Your task to perform on an android device: Show me popular games on the Play Store Image 0: 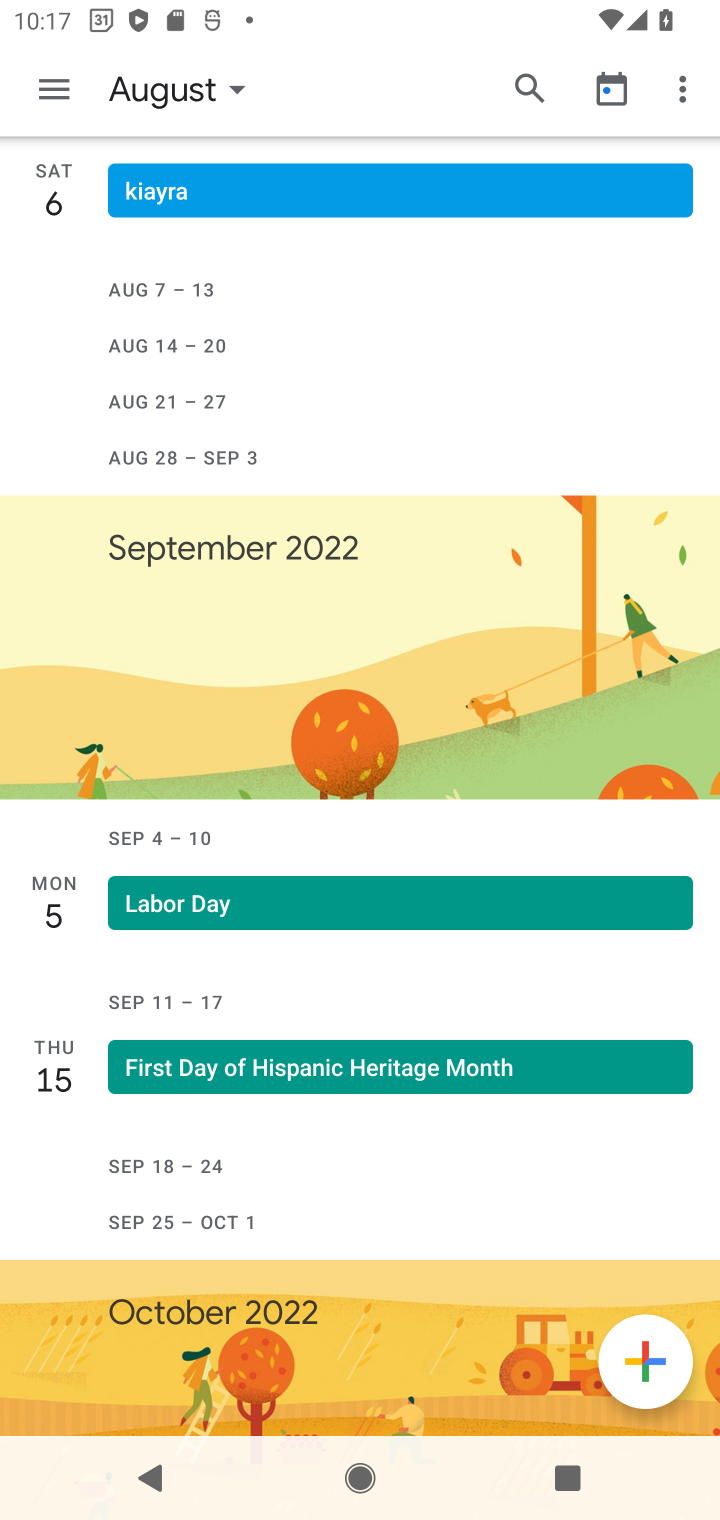
Step 0: press home button
Your task to perform on an android device: Show me popular games on the Play Store Image 1: 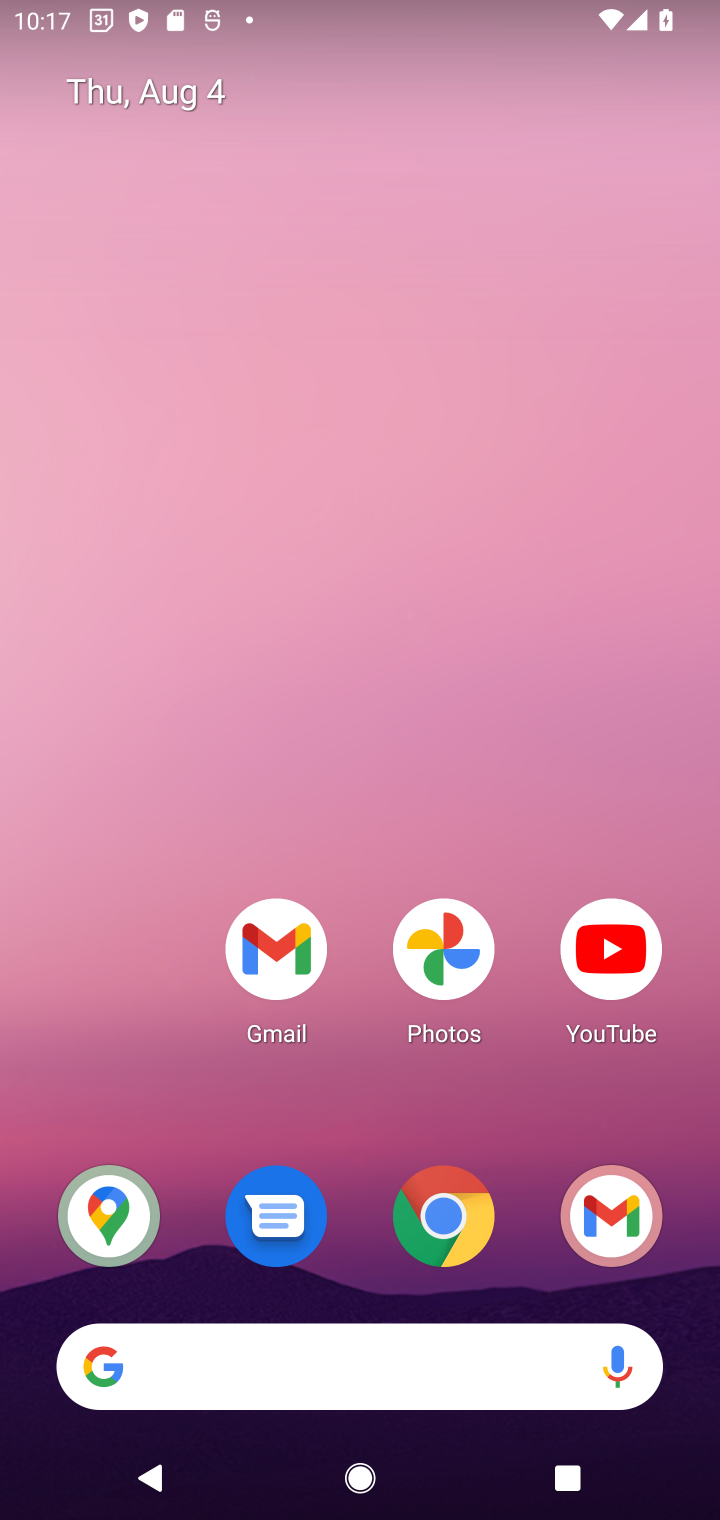
Step 1: drag from (329, 1341) to (316, 315)
Your task to perform on an android device: Show me popular games on the Play Store Image 2: 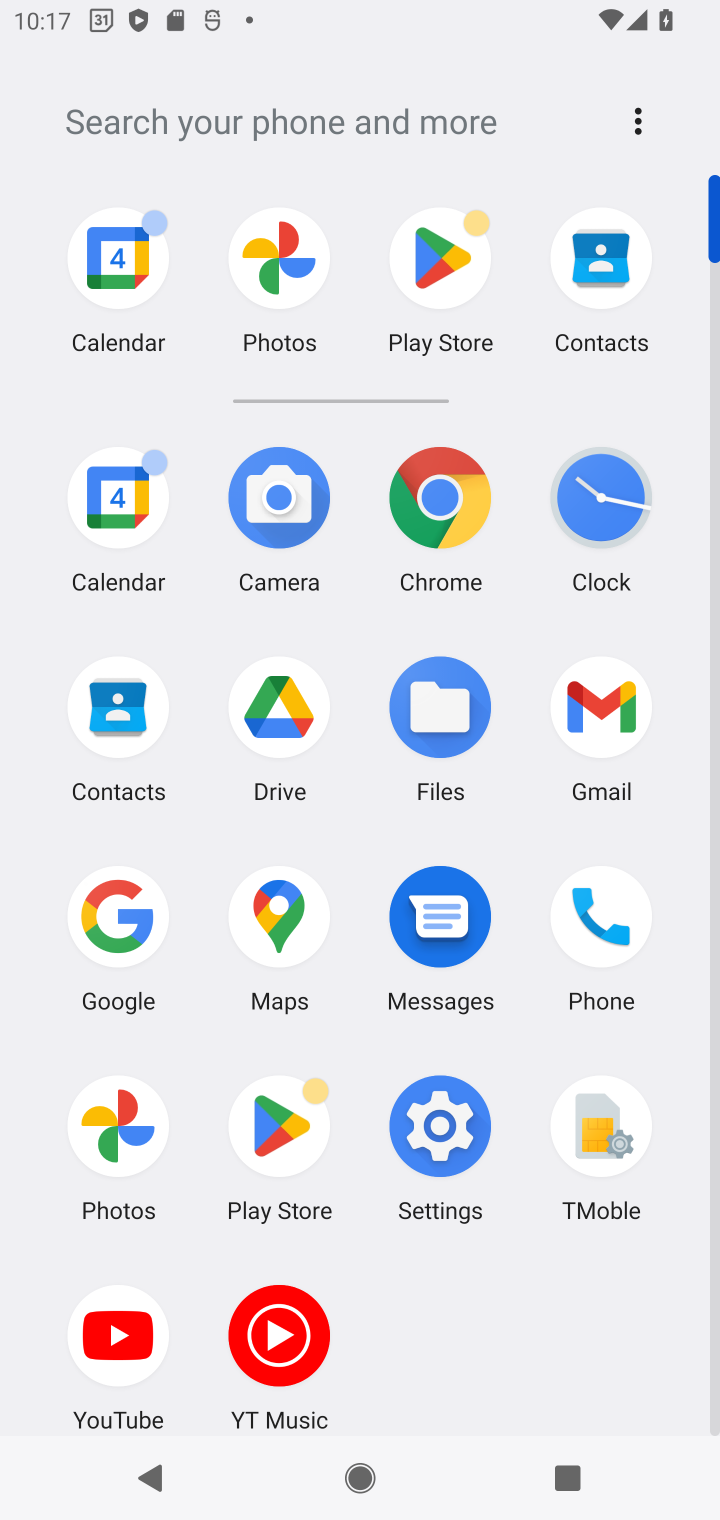
Step 2: click (453, 268)
Your task to perform on an android device: Show me popular games on the Play Store Image 3: 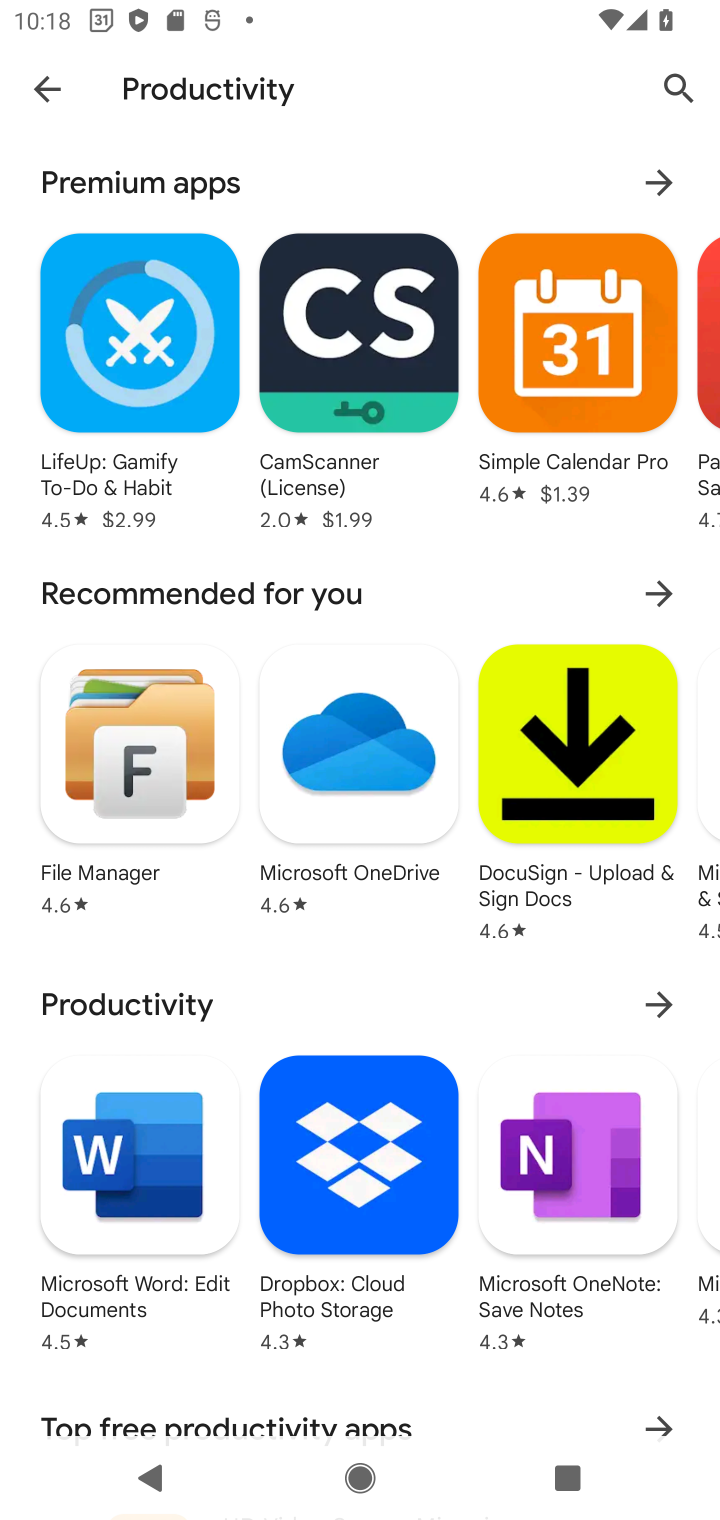
Step 3: click (674, 83)
Your task to perform on an android device: Show me popular games on the Play Store Image 4: 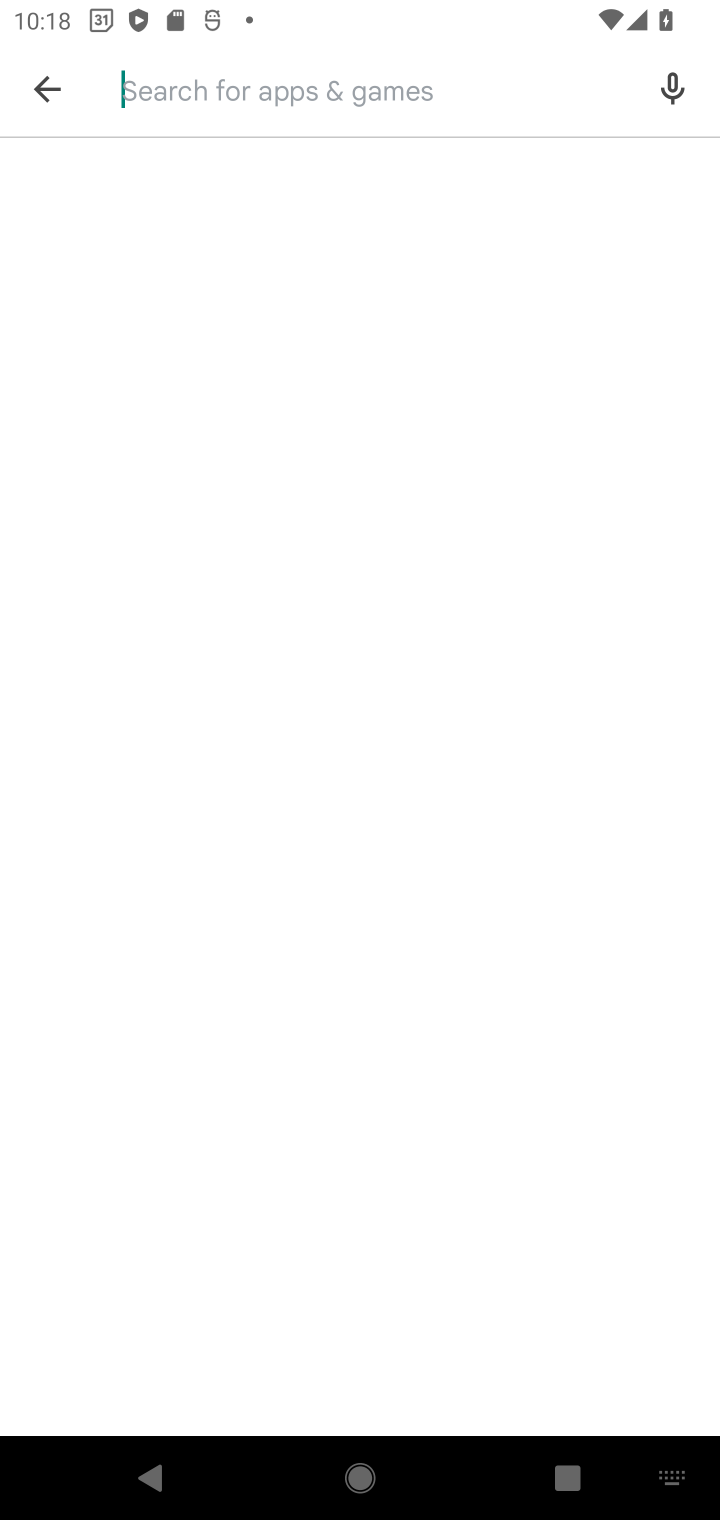
Step 4: press back button
Your task to perform on an android device: Show me popular games on the Play Store Image 5: 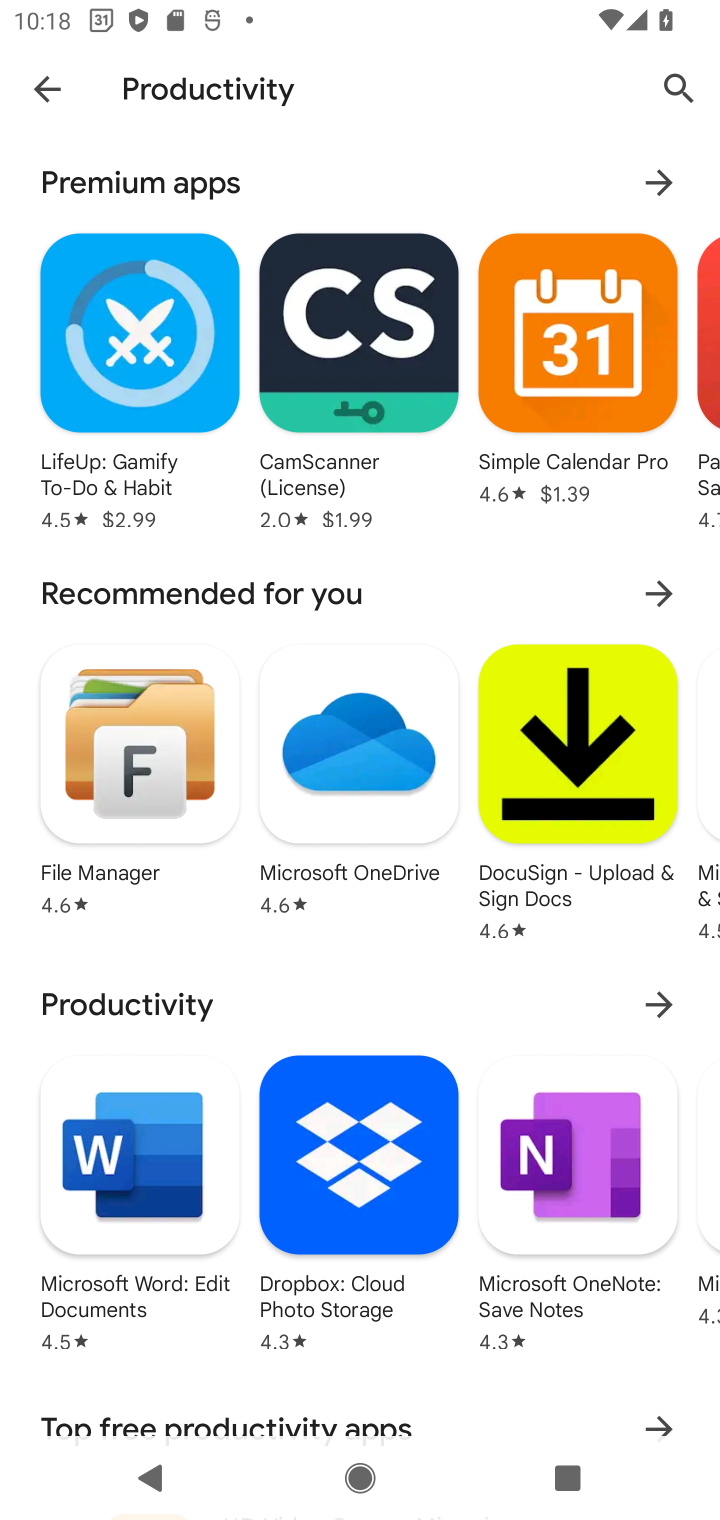
Step 5: click (677, 98)
Your task to perform on an android device: Show me popular games on the Play Store Image 6: 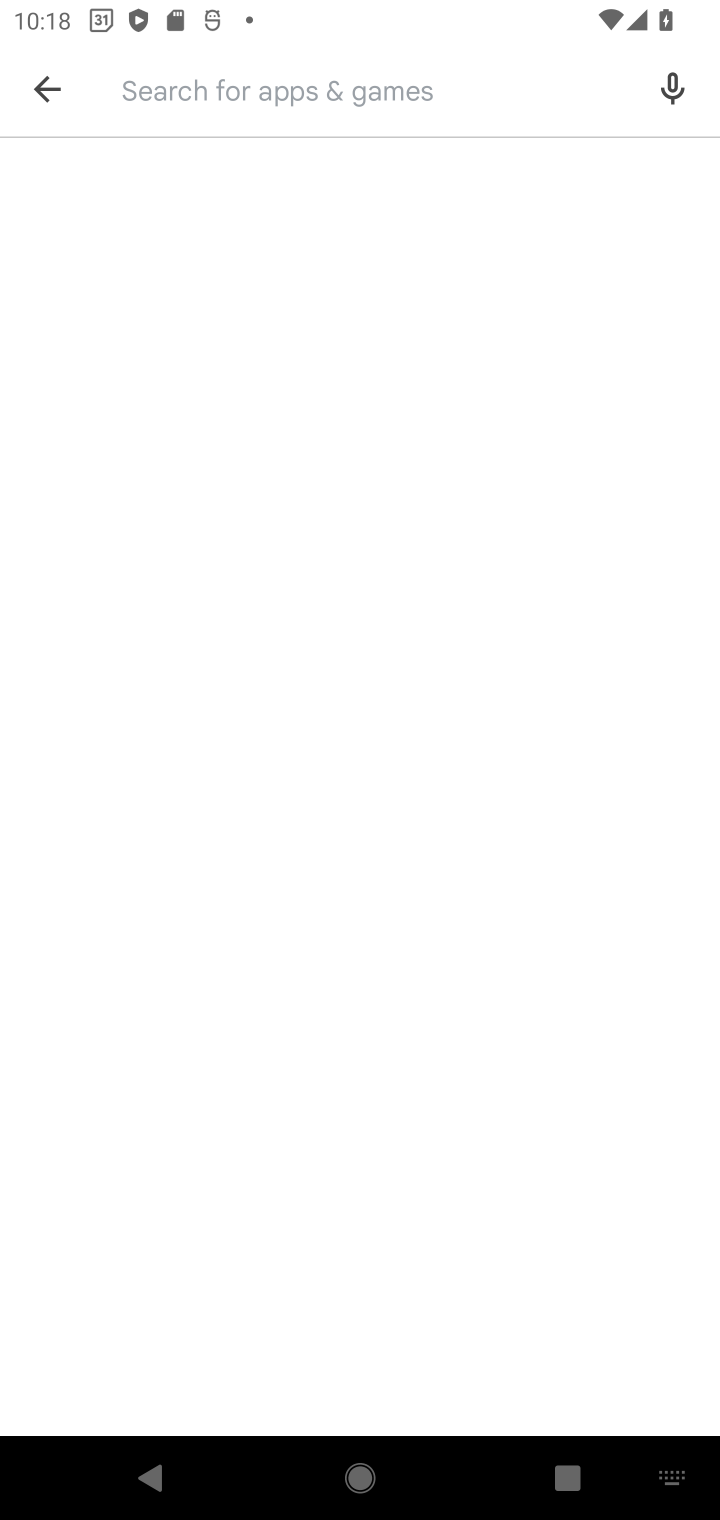
Step 6: type "popular games"
Your task to perform on an android device: Show me popular games on the Play Store Image 7: 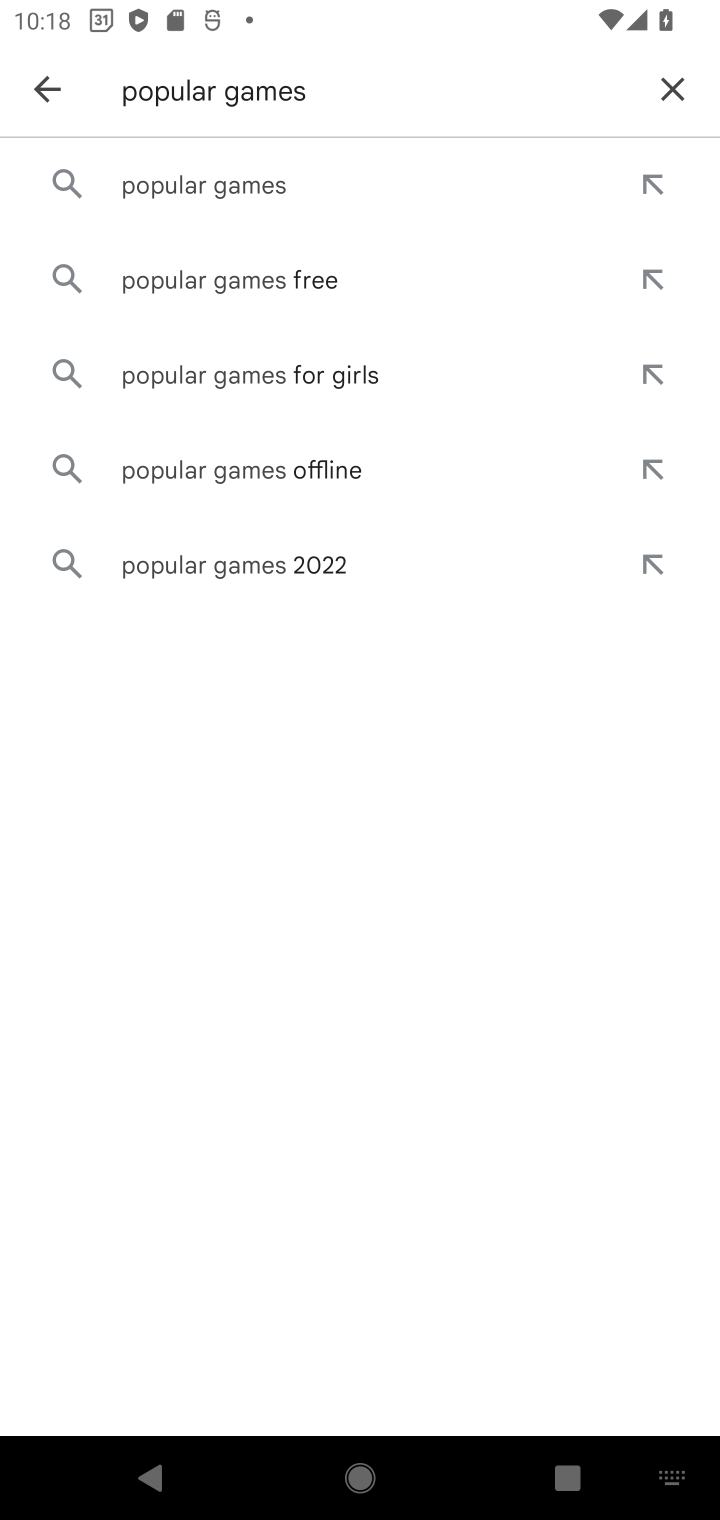
Step 7: click (164, 197)
Your task to perform on an android device: Show me popular games on the Play Store Image 8: 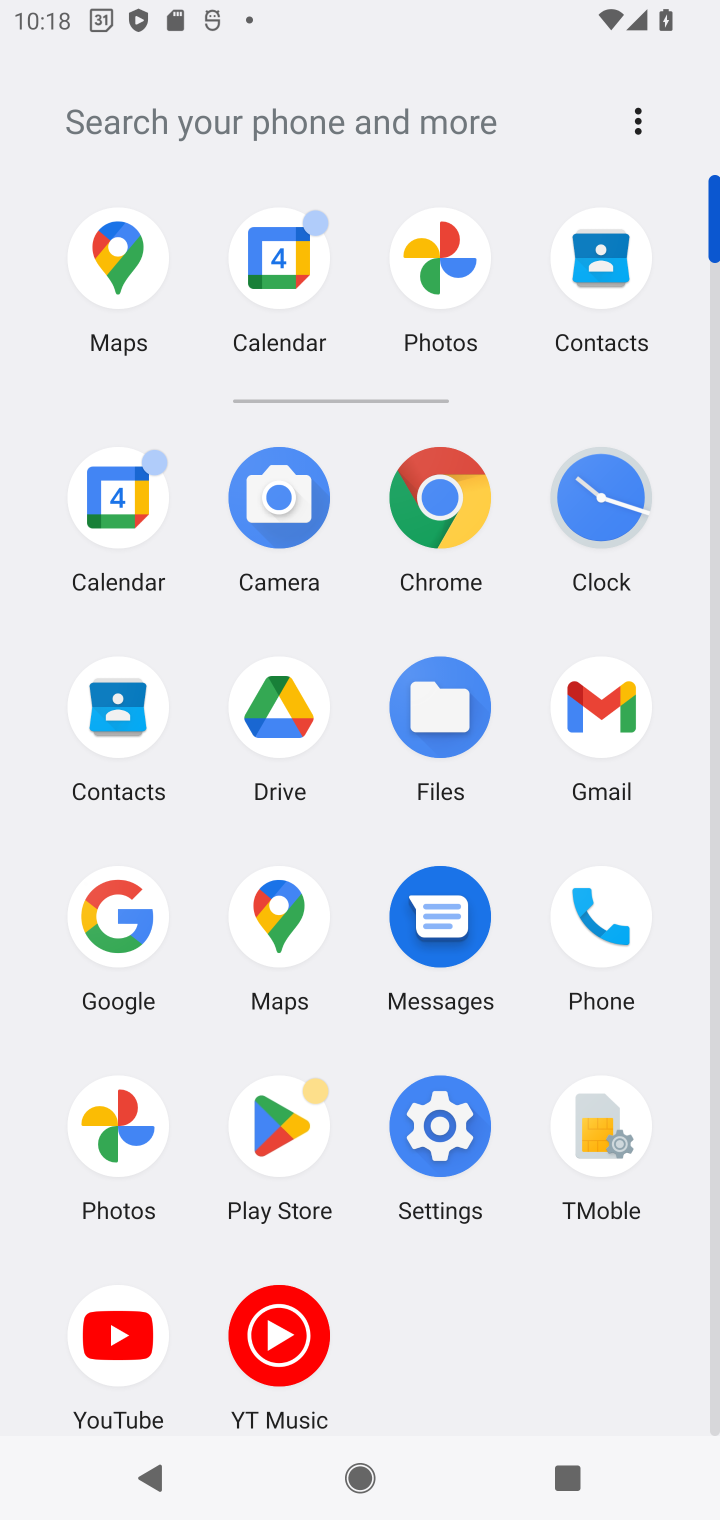
Step 8: click (285, 1146)
Your task to perform on an android device: Show me popular games on the Play Store Image 9: 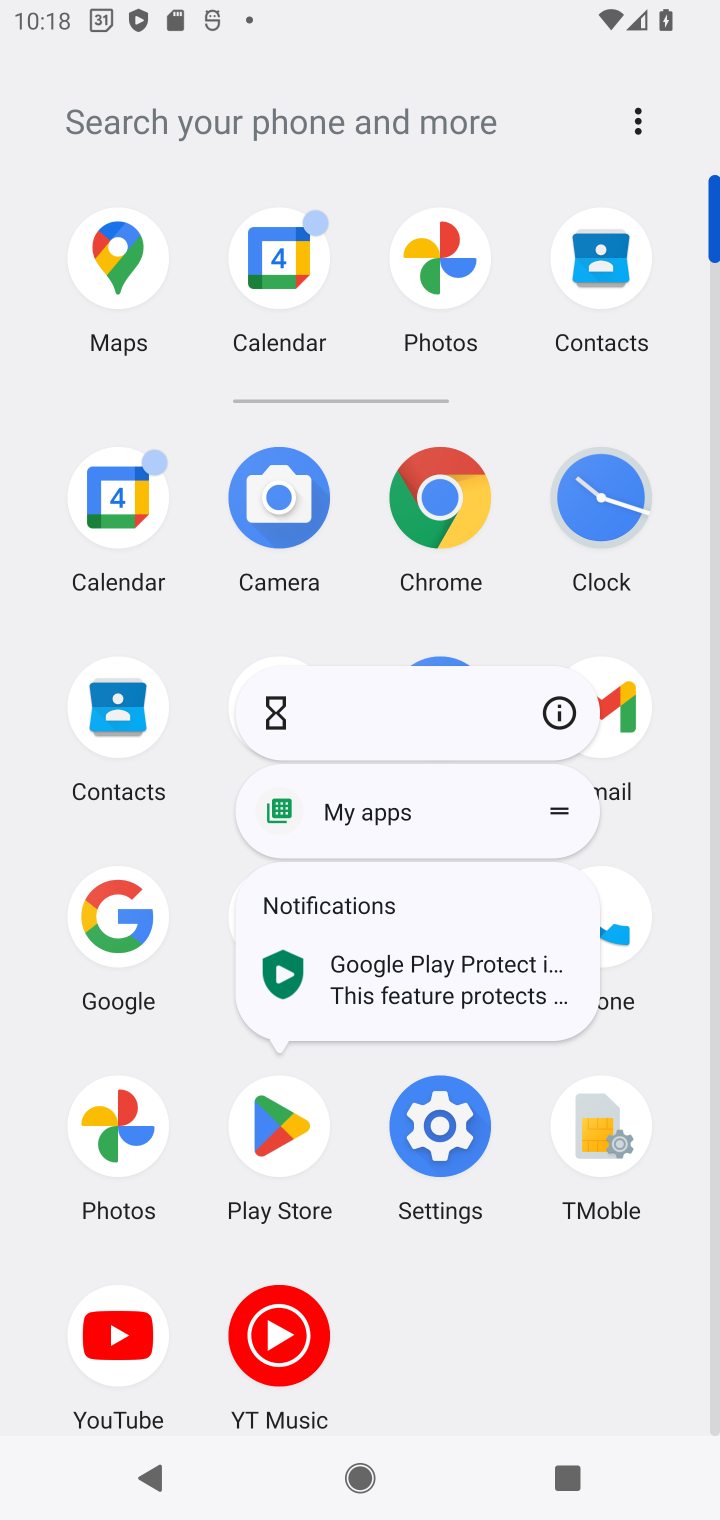
Step 9: click (285, 1146)
Your task to perform on an android device: Show me popular games on the Play Store Image 10: 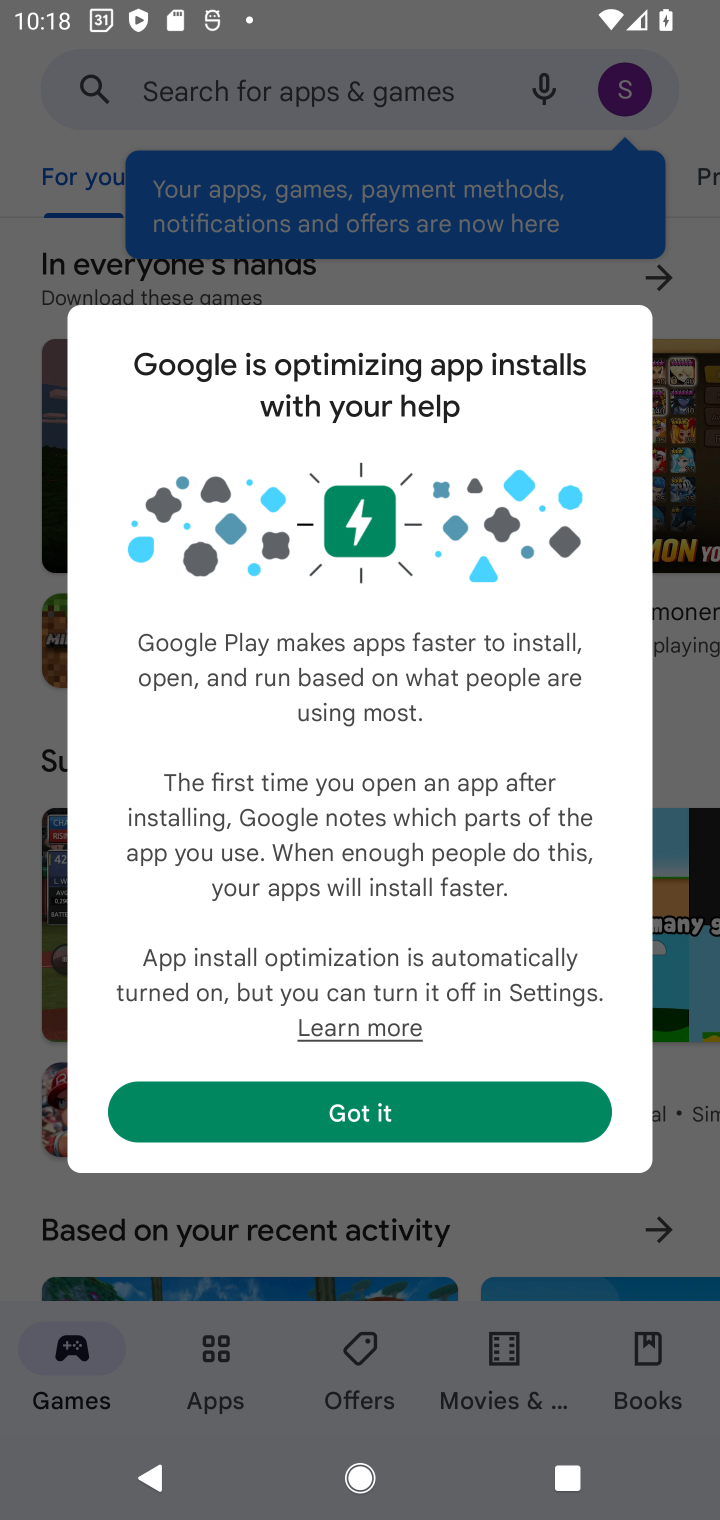
Step 10: click (351, 1130)
Your task to perform on an android device: Show me popular games on the Play Store Image 11: 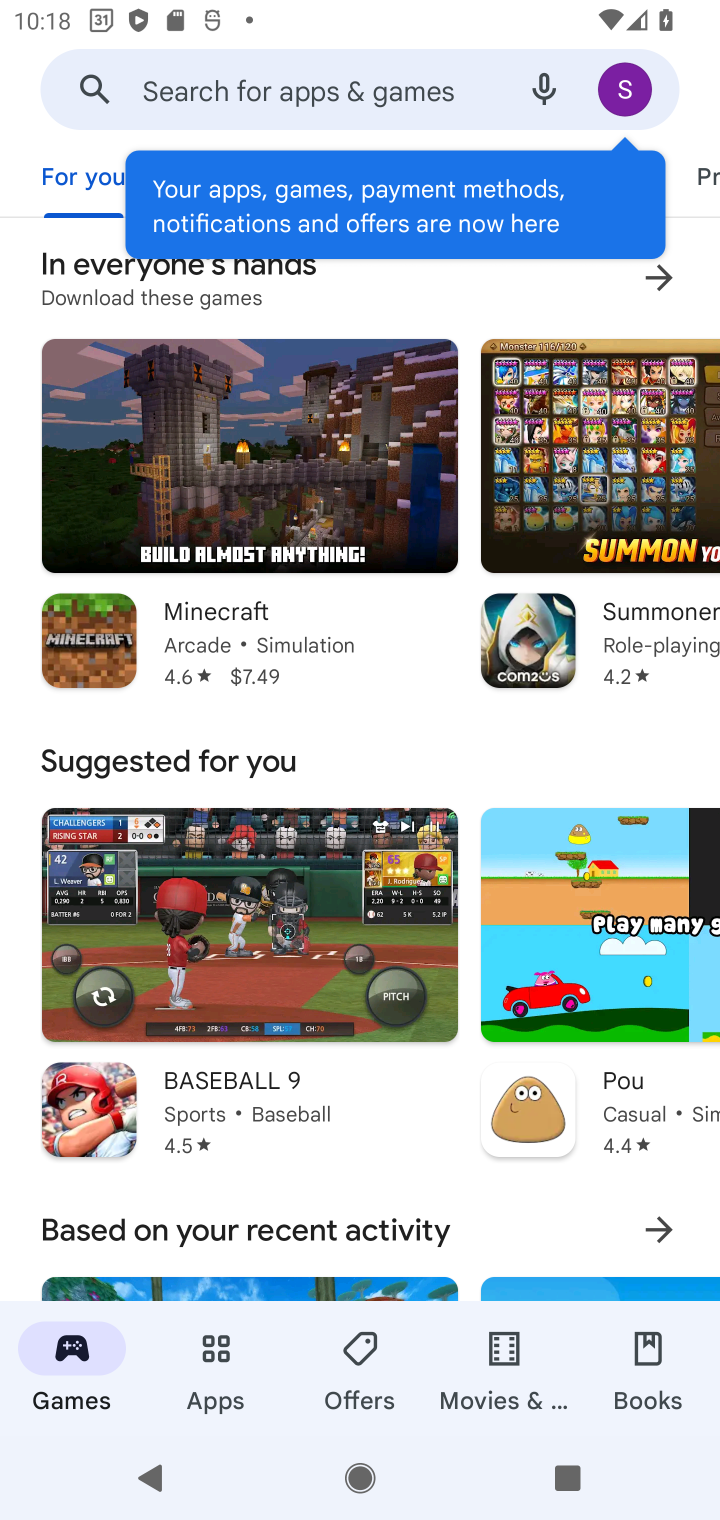
Step 11: click (398, 114)
Your task to perform on an android device: Show me popular games on the Play Store Image 12: 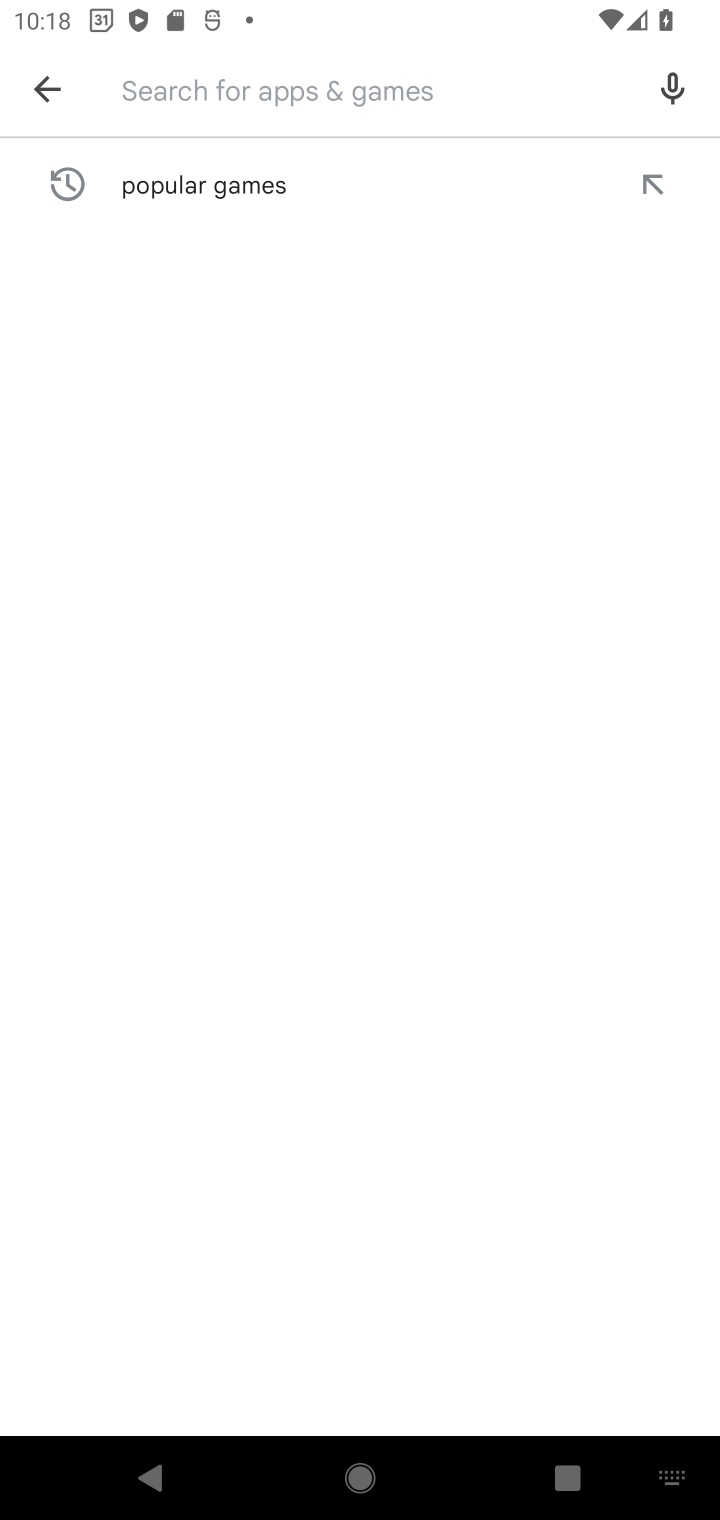
Step 12: click (237, 185)
Your task to perform on an android device: Show me popular games on the Play Store Image 13: 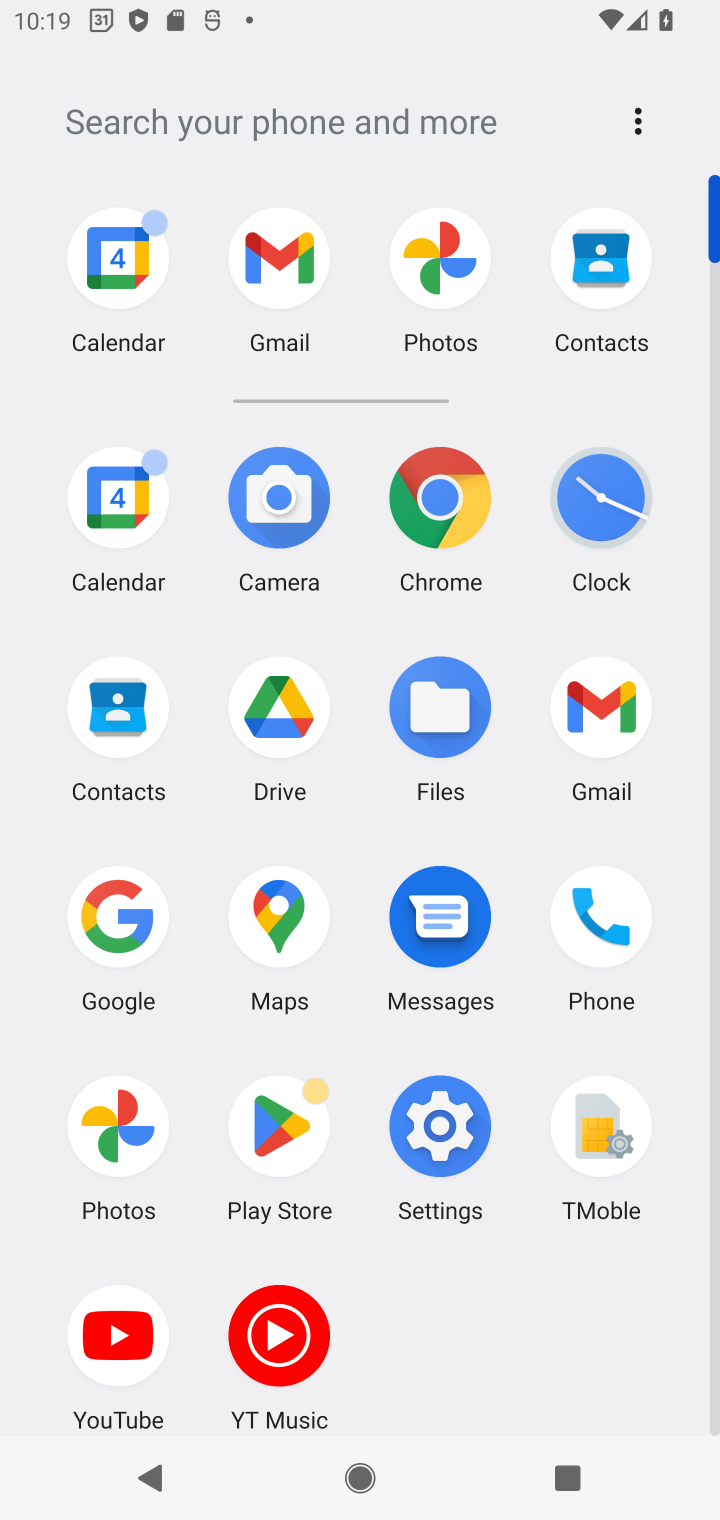
Step 13: click (295, 1136)
Your task to perform on an android device: Show me popular games on the Play Store Image 14: 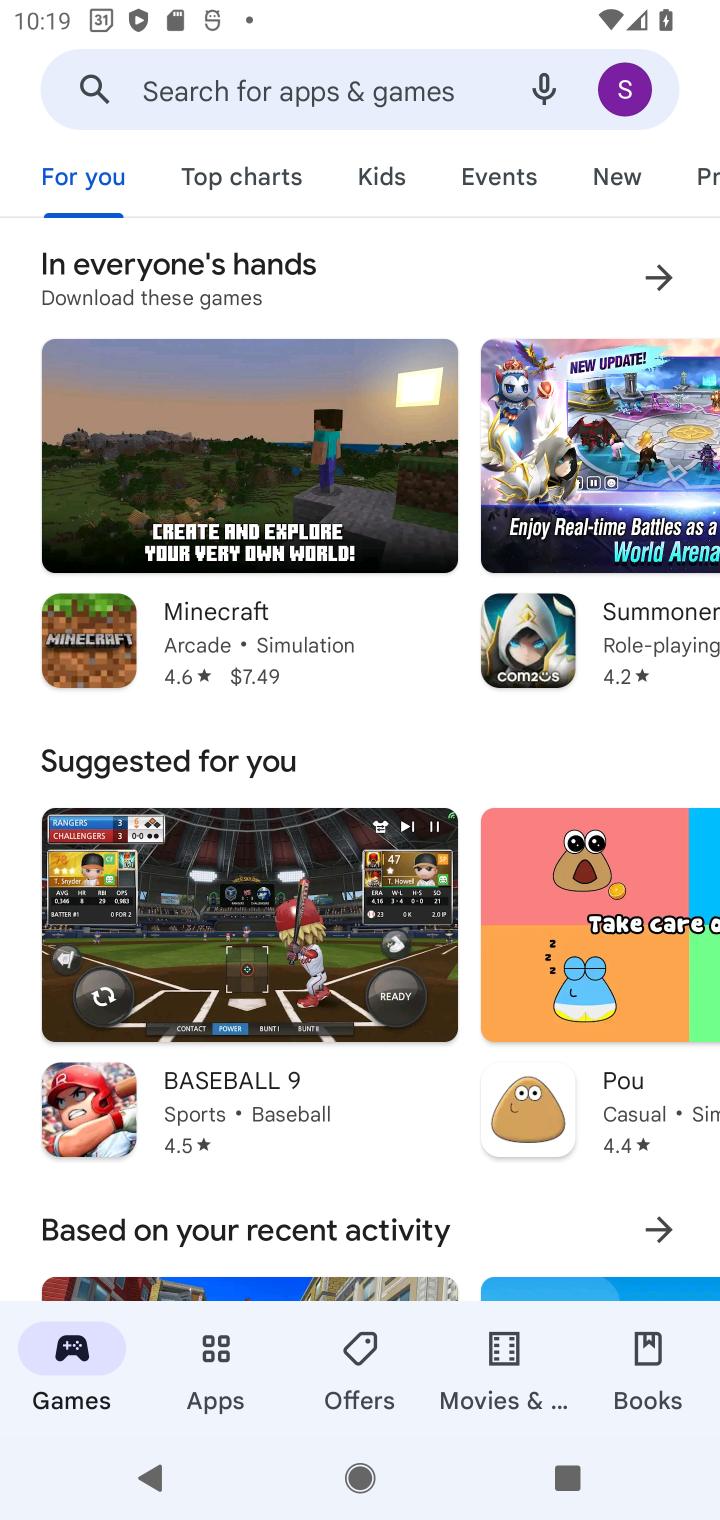
Step 14: click (407, 83)
Your task to perform on an android device: Show me popular games on the Play Store Image 15: 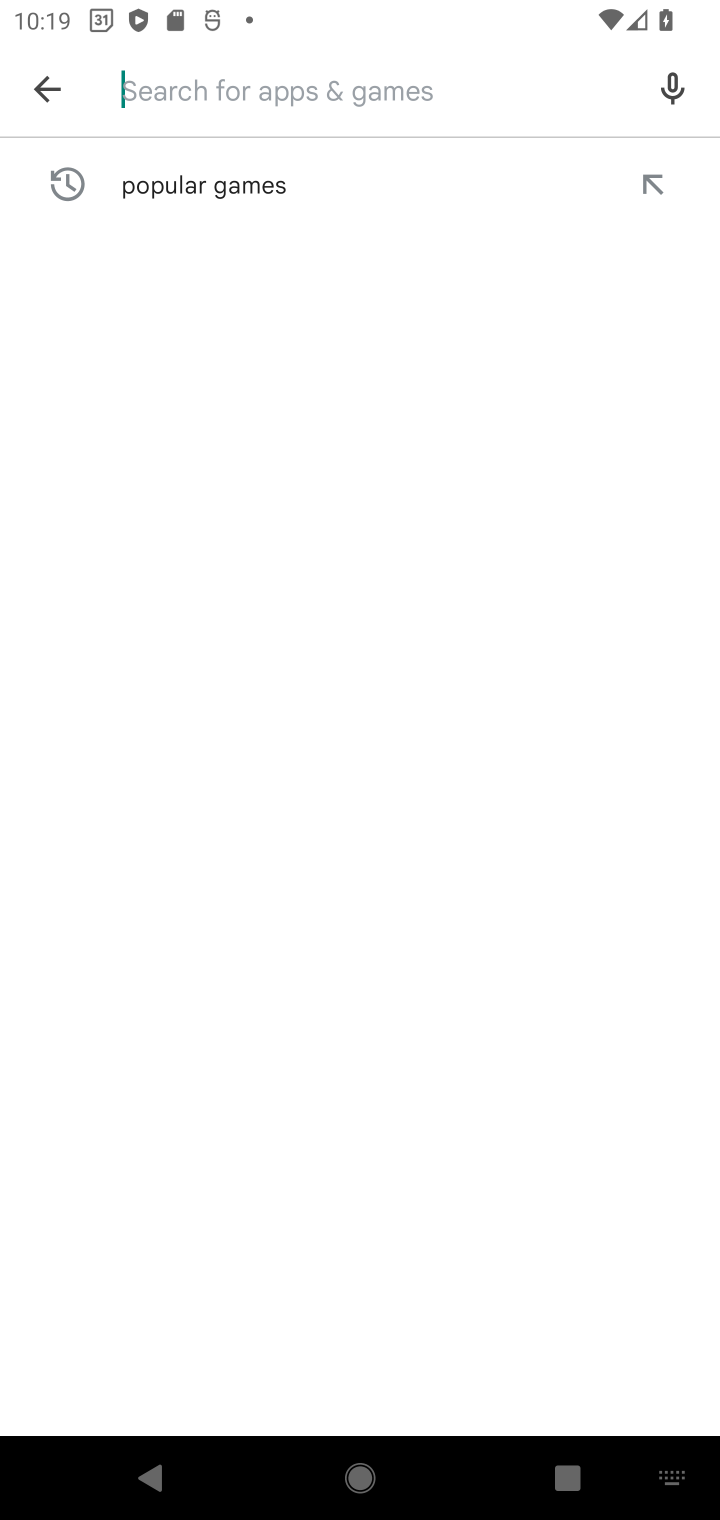
Step 15: click (265, 181)
Your task to perform on an android device: Show me popular games on the Play Store Image 16: 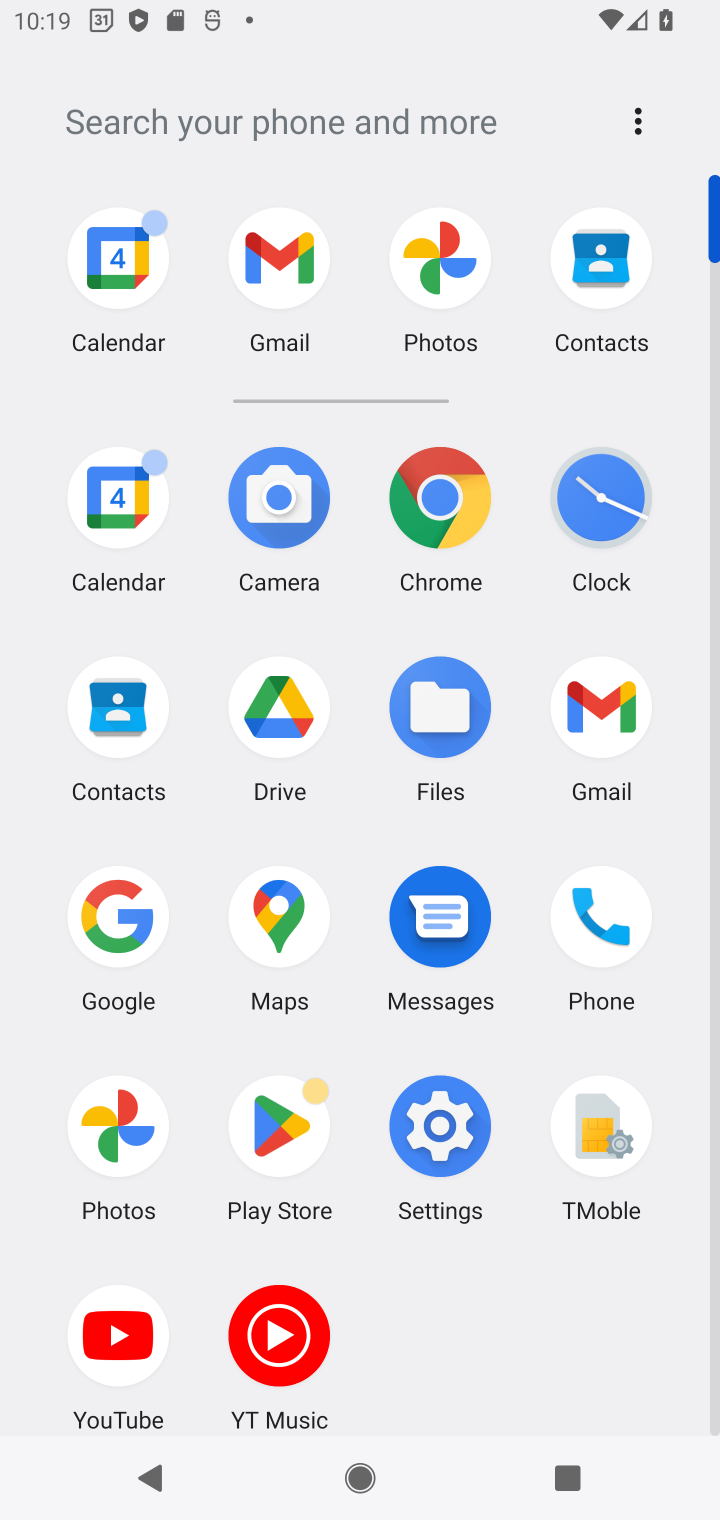
Step 16: task complete